Your task to perform on an android device: Show me recent news Image 0: 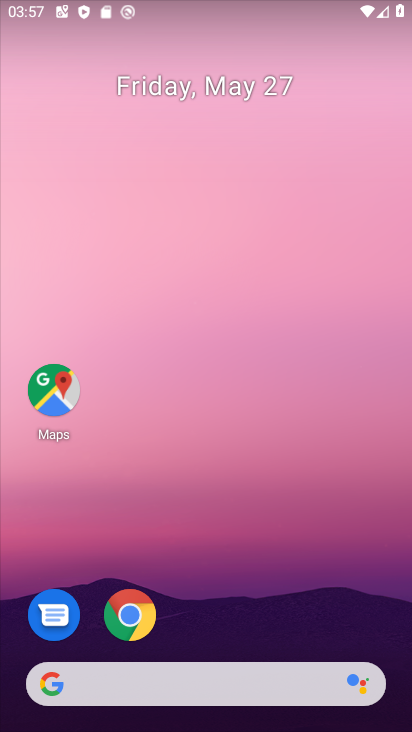
Step 0: click (148, 630)
Your task to perform on an android device: Show me recent news Image 1: 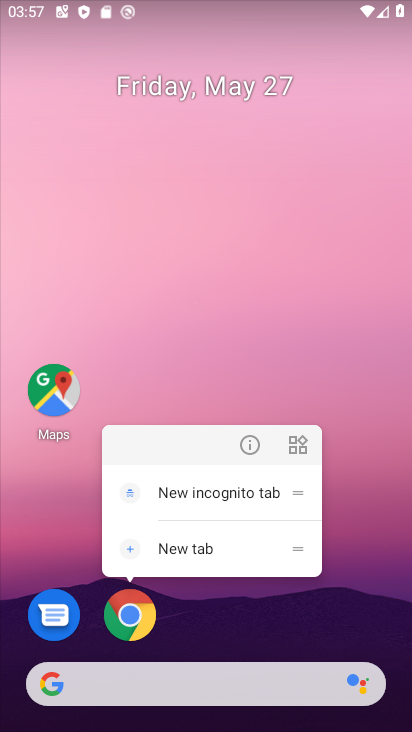
Step 1: click (133, 601)
Your task to perform on an android device: Show me recent news Image 2: 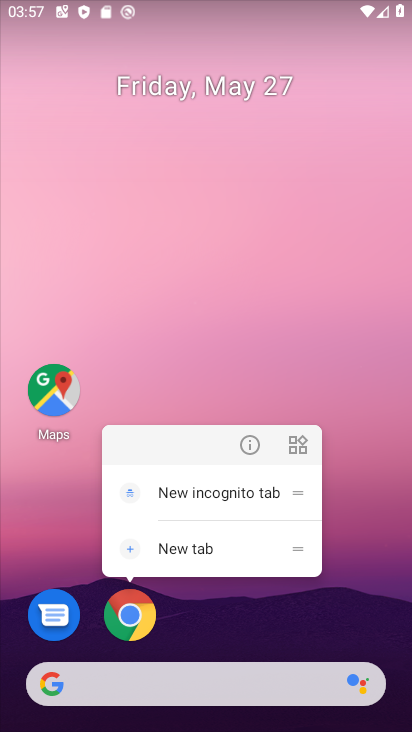
Step 2: click (118, 617)
Your task to perform on an android device: Show me recent news Image 3: 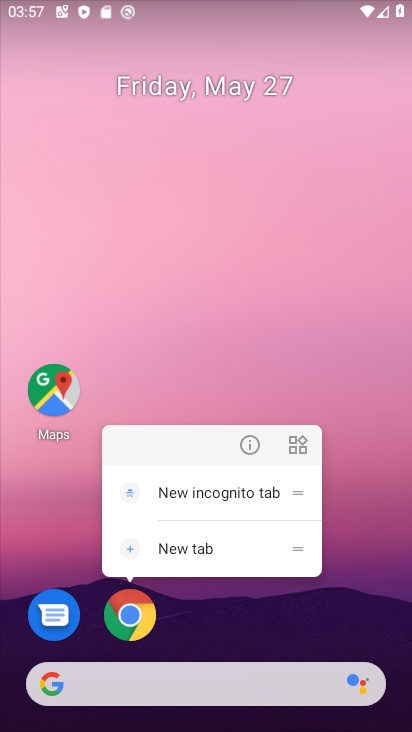
Step 3: click (136, 617)
Your task to perform on an android device: Show me recent news Image 4: 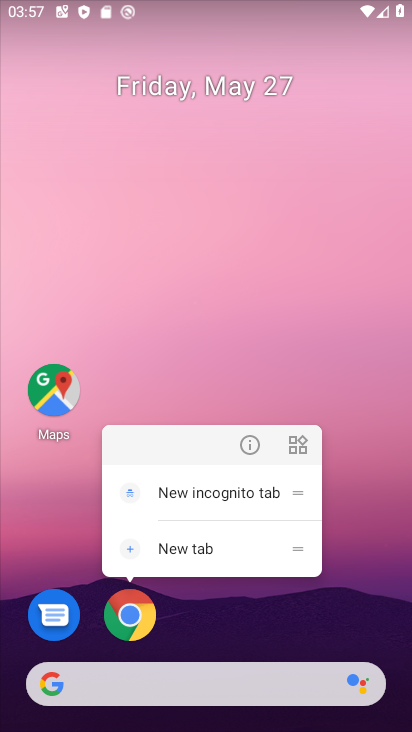
Step 4: click (136, 617)
Your task to perform on an android device: Show me recent news Image 5: 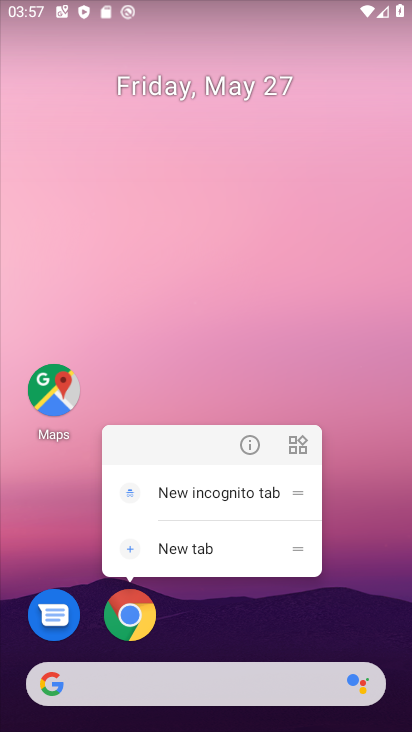
Step 5: click (133, 635)
Your task to perform on an android device: Show me recent news Image 6: 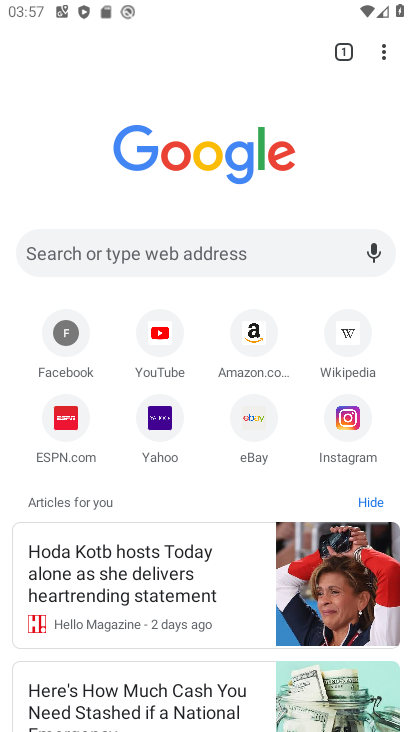
Step 6: task complete